Your task to perform on an android device: turn notification dots off Image 0: 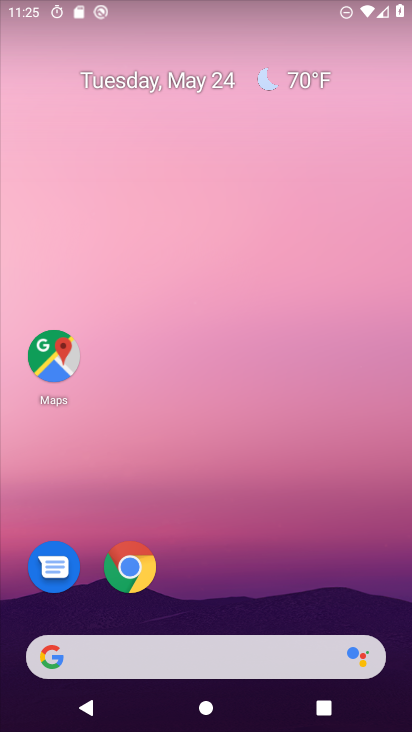
Step 0: drag from (398, 716) to (359, 227)
Your task to perform on an android device: turn notification dots off Image 1: 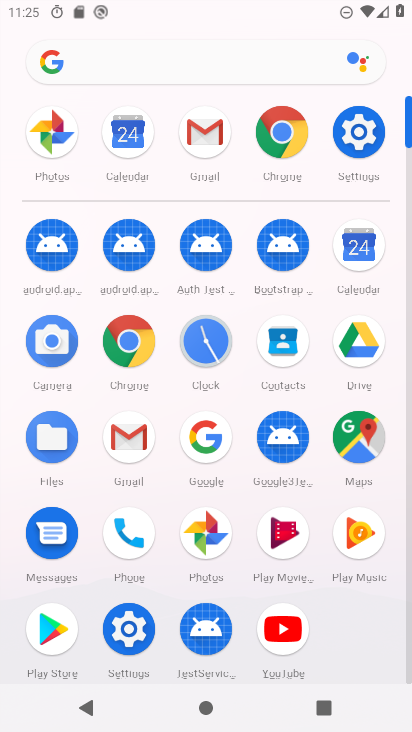
Step 1: click (352, 126)
Your task to perform on an android device: turn notification dots off Image 2: 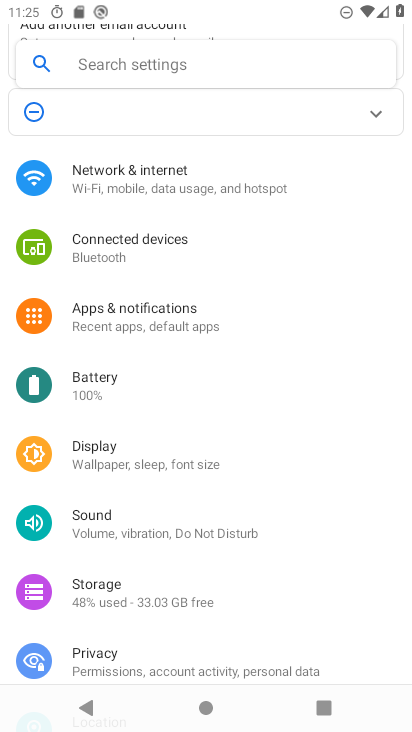
Step 2: click (122, 183)
Your task to perform on an android device: turn notification dots off Image 3: 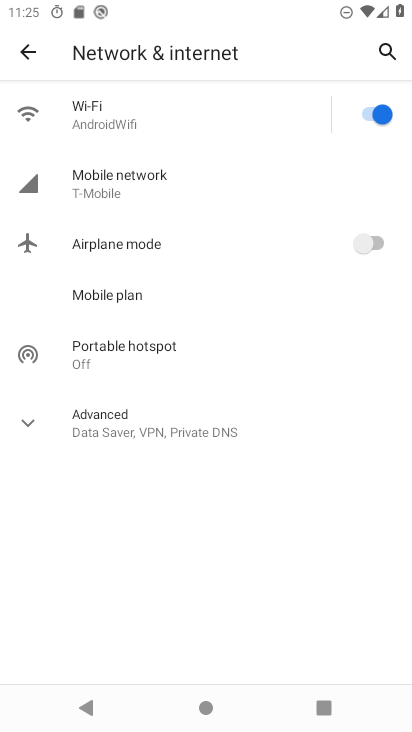
Step 3: click (28, 56)
Your task to perform on an android device: turn notification dots off Image 4: 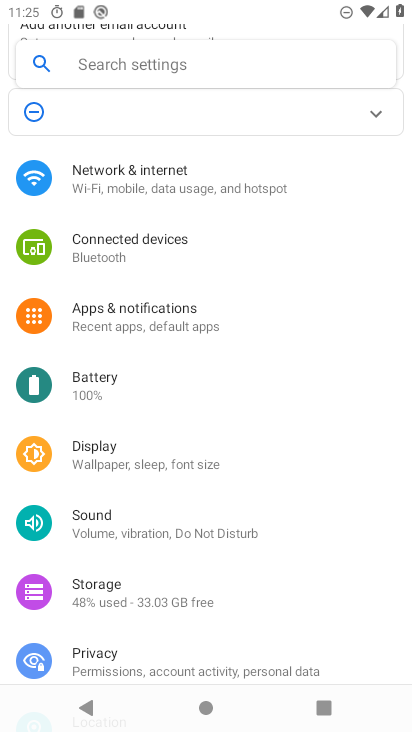
Step 4: click (141, 318)
Your task to perform on an android device: turn notification dots off Image 5: 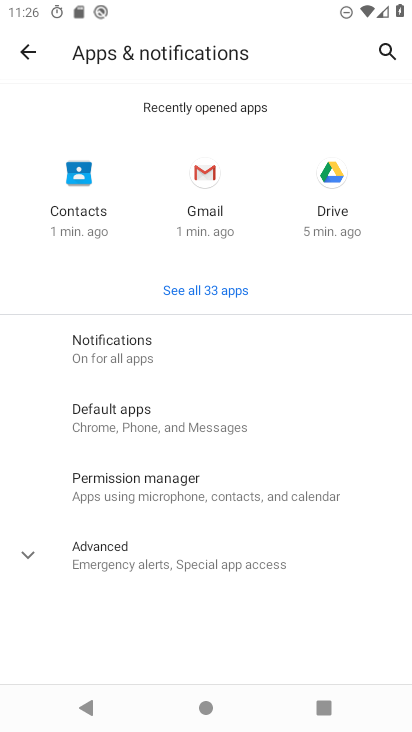
Step 5: click (93, 339)
Your task to perform on an android device: turn notification dots off Image 6: 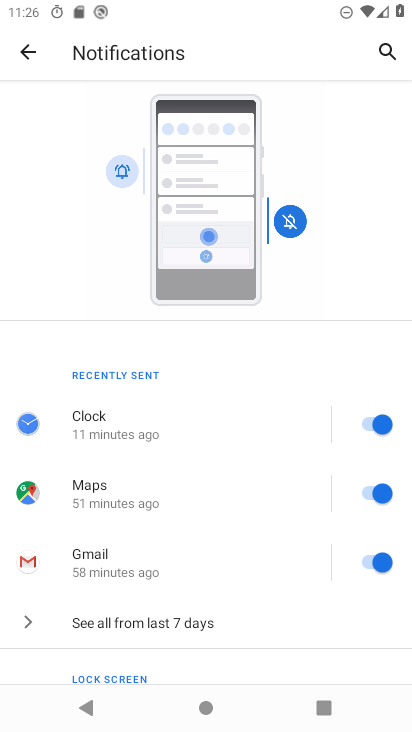
Step 6: drag from (268, 666) to (257, 196)
Your task to perform on an android device: turn notification dots off Image 7: 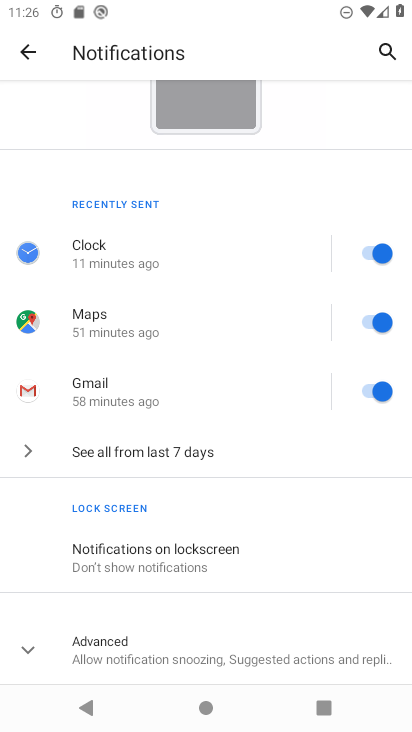
Step 7: drag from (281, 630) to (283, 279)
Your task to perform on an android device: turn notification dots off Image 8: 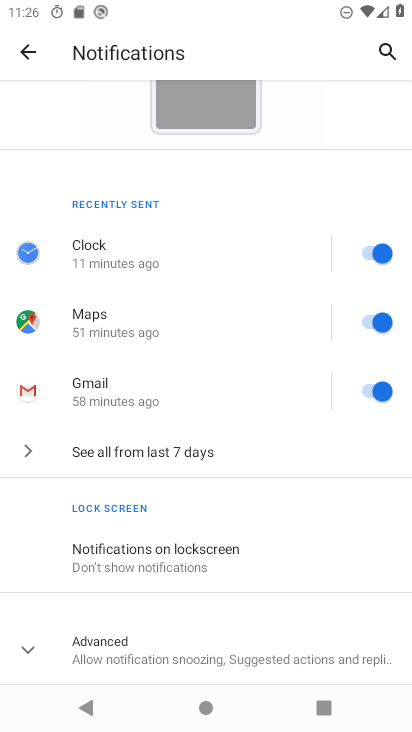
Step 8: click (36, 657)
Your task to perform on an android device: turn notification dots off Image 9: 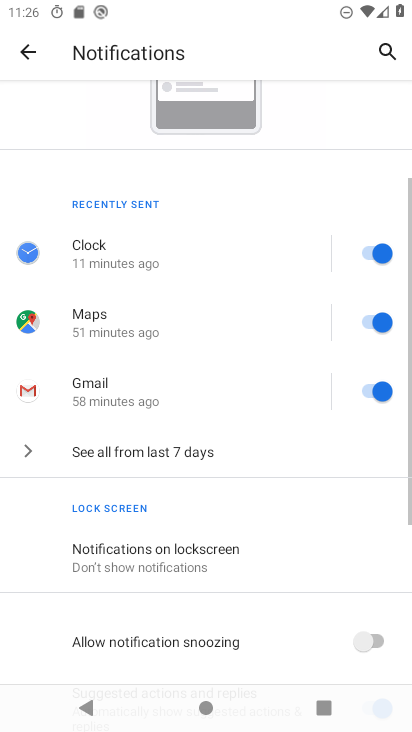
Step 9: drag from (287, 669) to (291, 326)
Your task to perform on an android device: turn notification dots off Image 10: 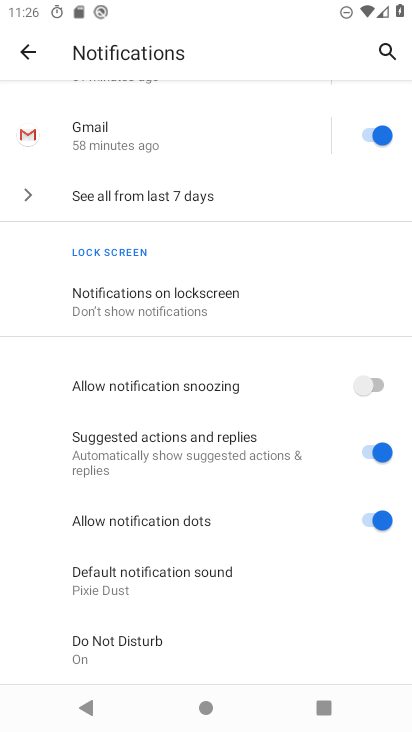
Step 10: click (367, 515)
Your task to perform on an android device: turn notification dots off Image 11: 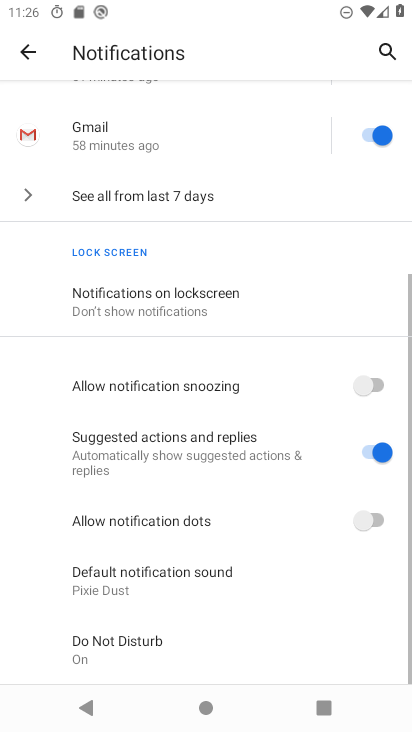
Step 11: task complete